Your task to perform on an android device: Find coffee shops on Maps Image 0: 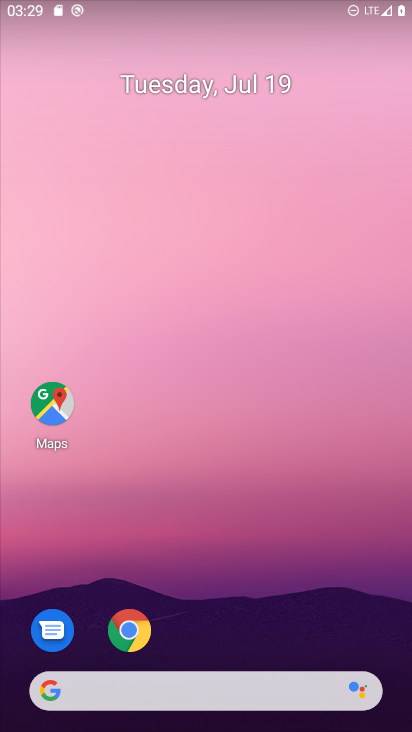
Step 0: click (55, 404)
Your task to perform on an android device: Find coffee shops on Maps Image 1: 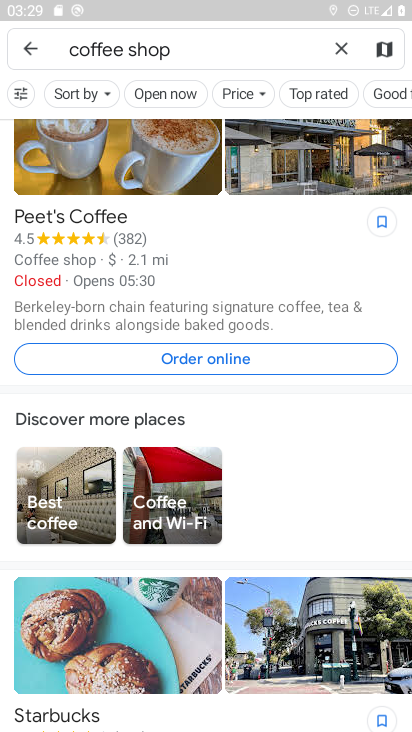
Step 1: task complete